Your task to perform on an android device: Turn on the flashlight Image 0: 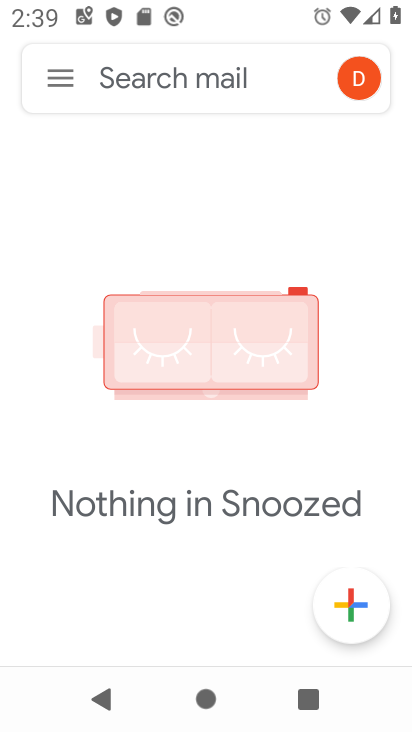
Step 0: press home button
Your task to perform on an android device: Turn on the flashlight Image 1: 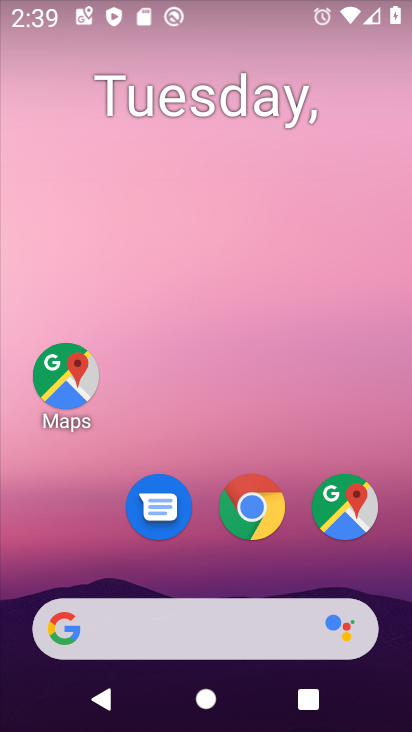
Step 1: drag from (204, 471) to (232, 219)
Your task to perform on an android device: Turn on the flashlight Image 2: 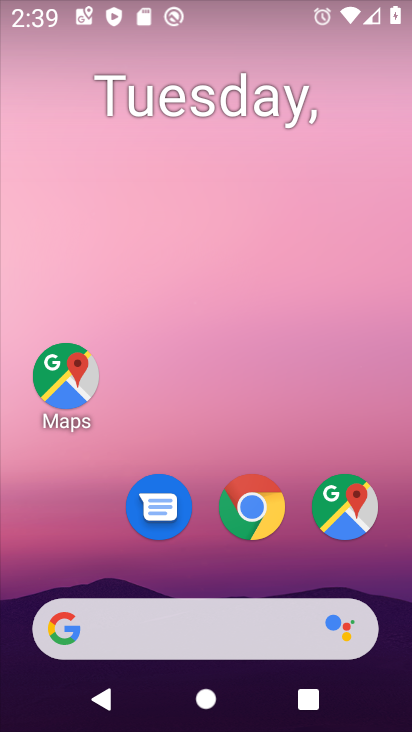
Step 2: drag from (207, 564) to (207, 232)
Your task to perform on an android device: Turn on the flashlight Image 3: 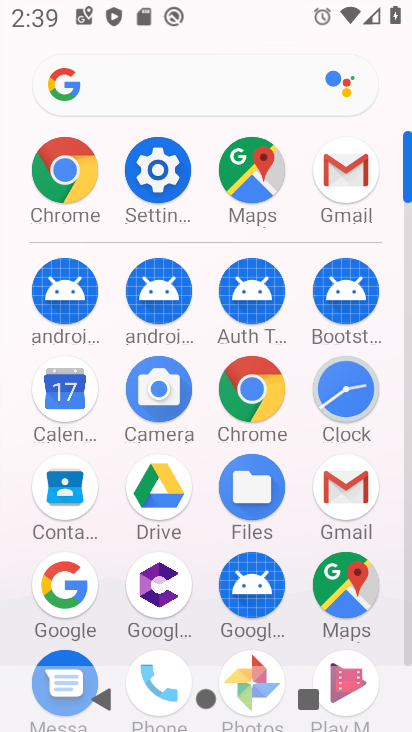
Step 3: click (146, 170)
Your task to perform on an android device: Turn on the flashlight Image 4: 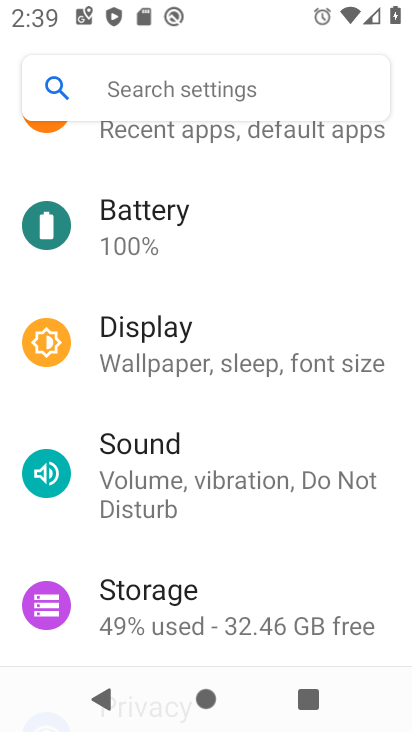
Step 4: task complete